Your task to perform on an android device: Open accessibility settings Image 0: 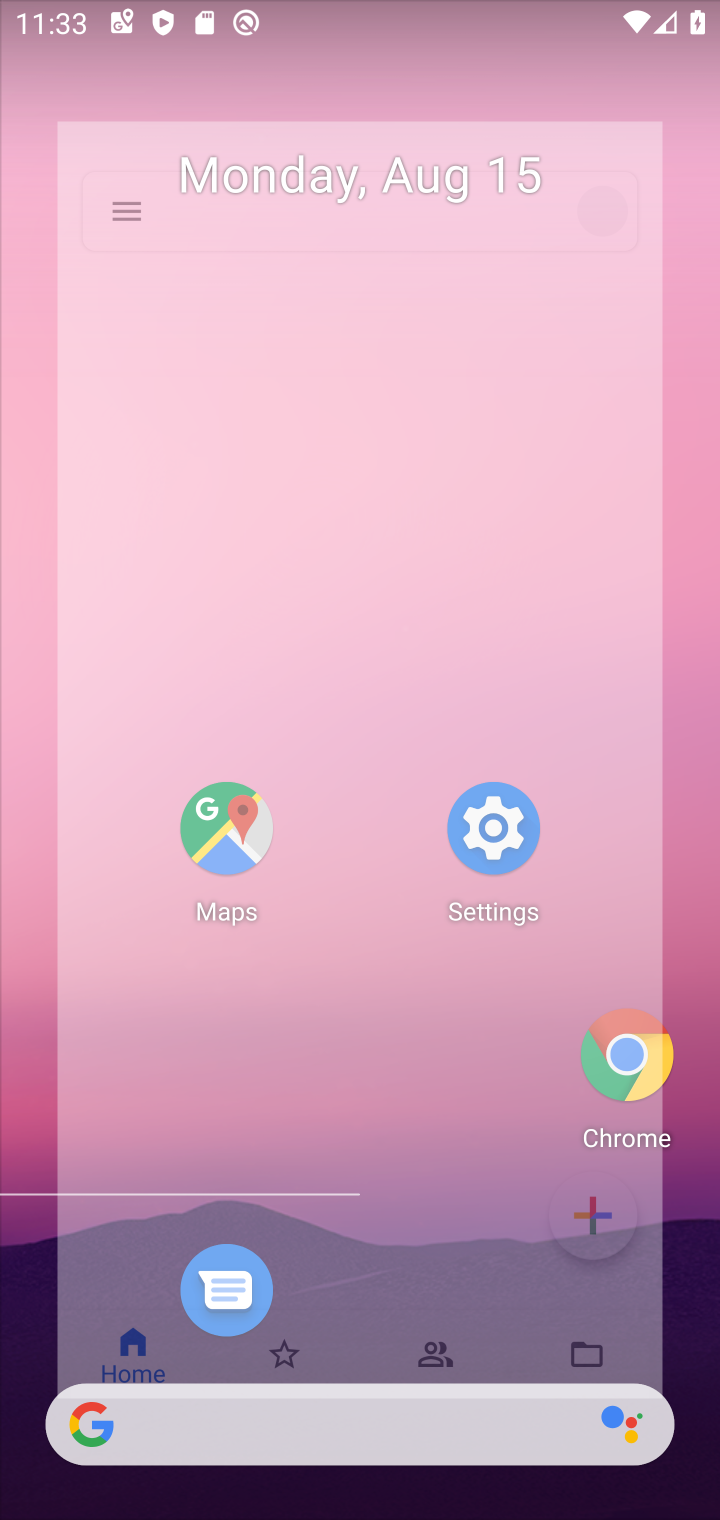
Step 0: press home button
Your task to perform on an android device: Open accessibility settings Image 1: 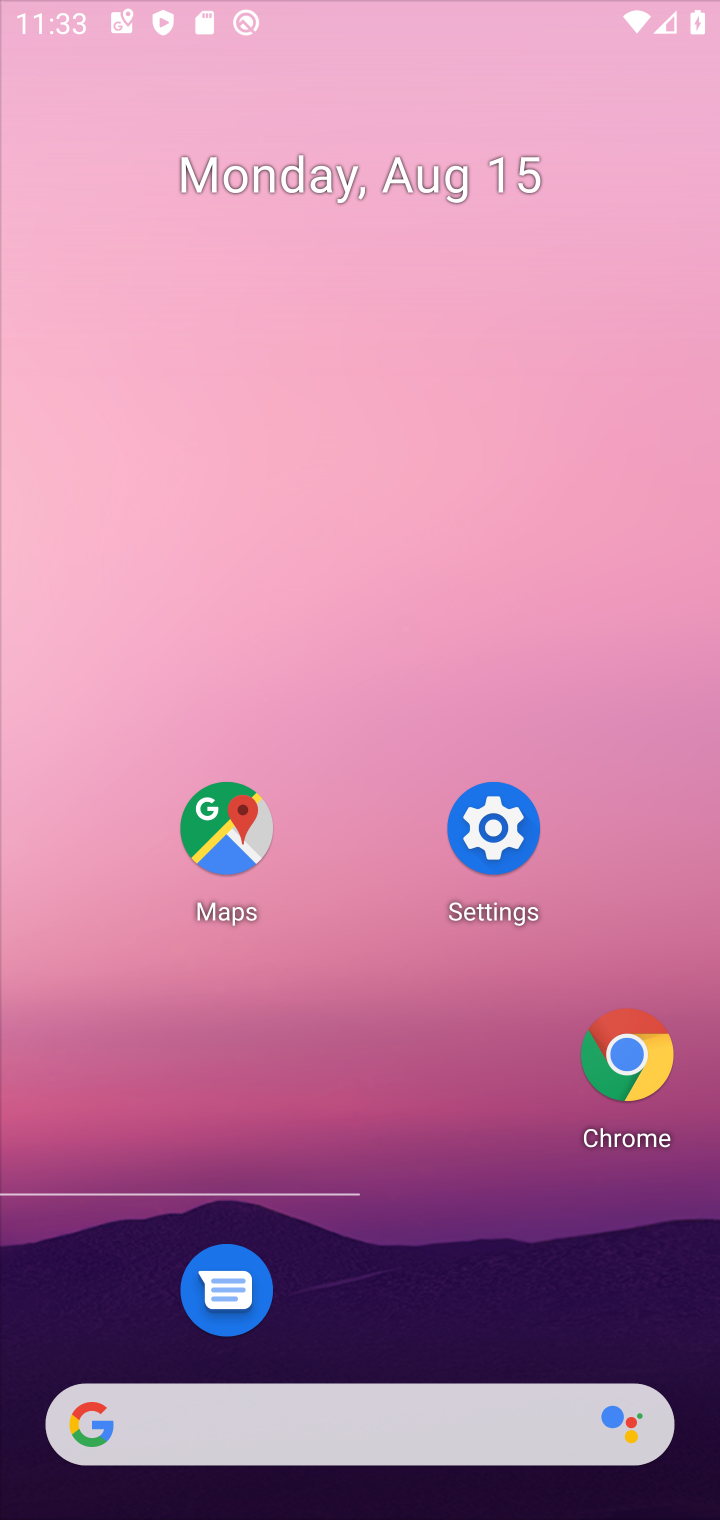
Step 1: press home button
Your task to perform on an android device: Open accessibility settings Image 2: 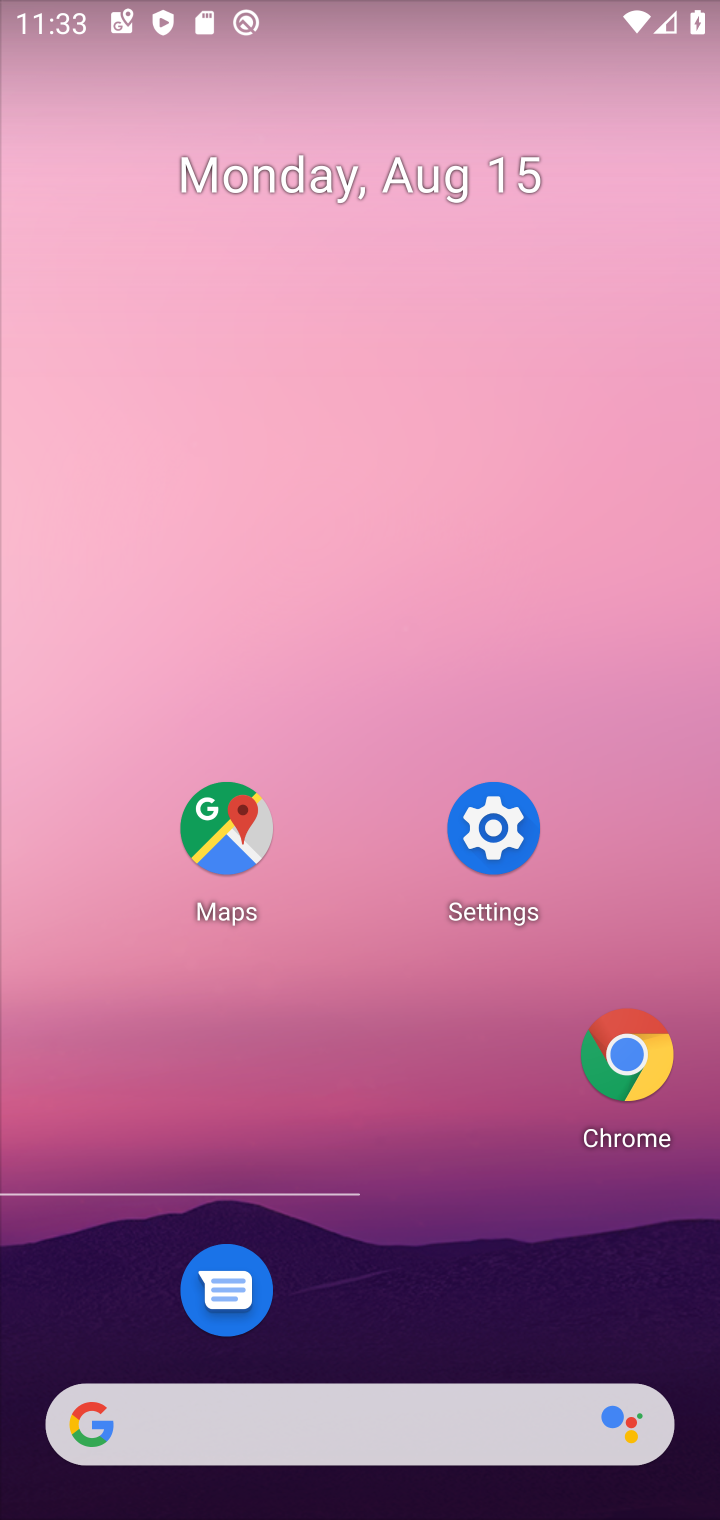
Step 2: click (494, 814)
Your task to perform on an android device: Open accessibility settings Image 3: 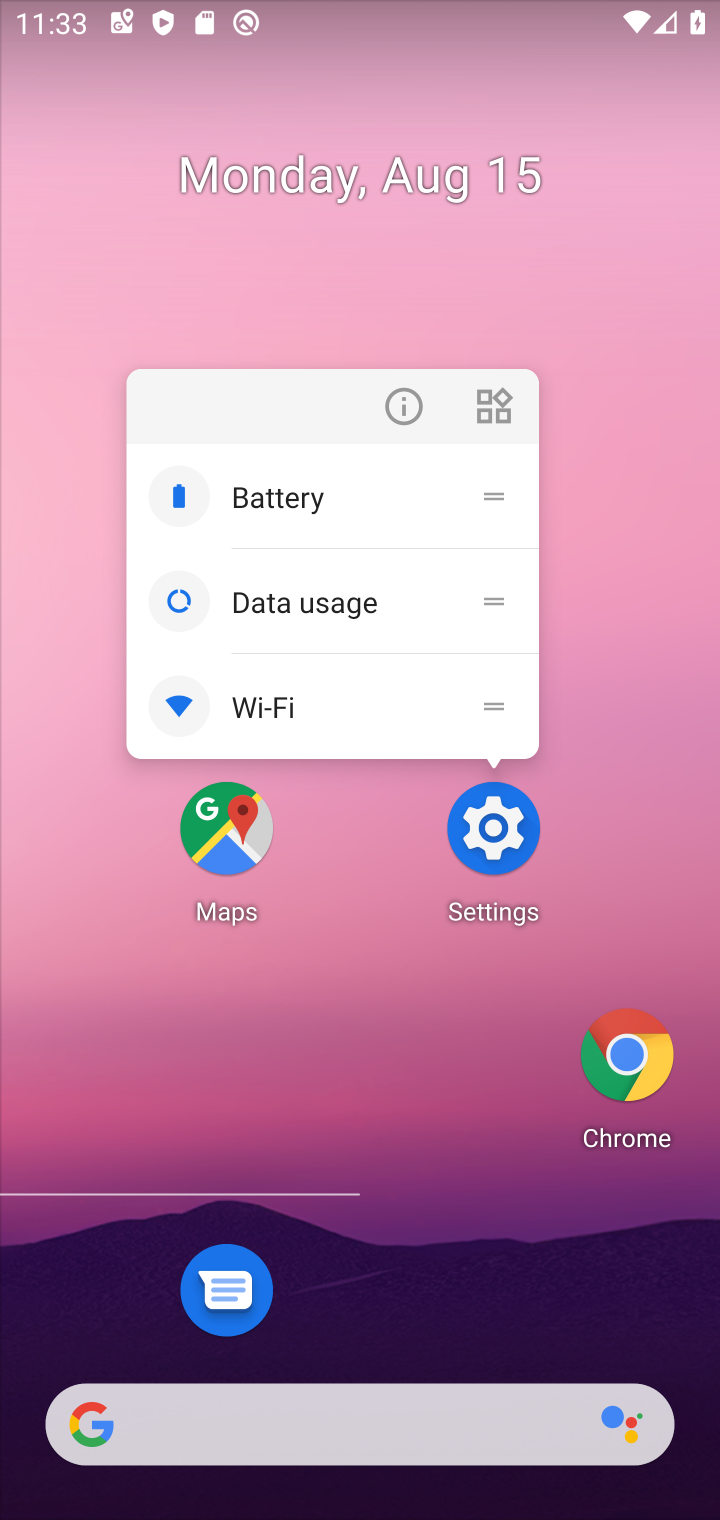
Step 3: click (494, 813)
Your task to perform on an android device: Open accessibility settings Image 4: 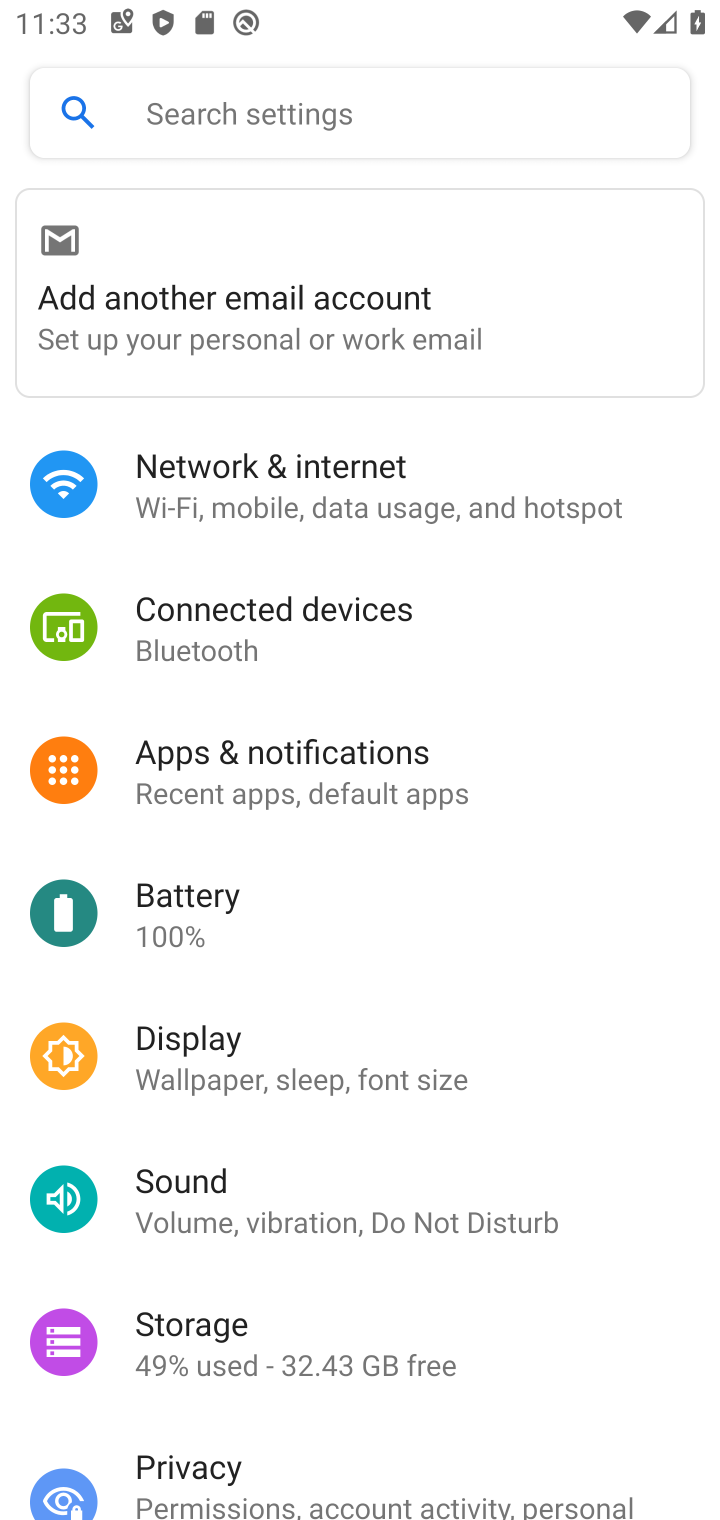
Step 4: drag from (496, 1354) to (616, 187)
Your task to perform on an android device: Open accessibility settings Image 5: 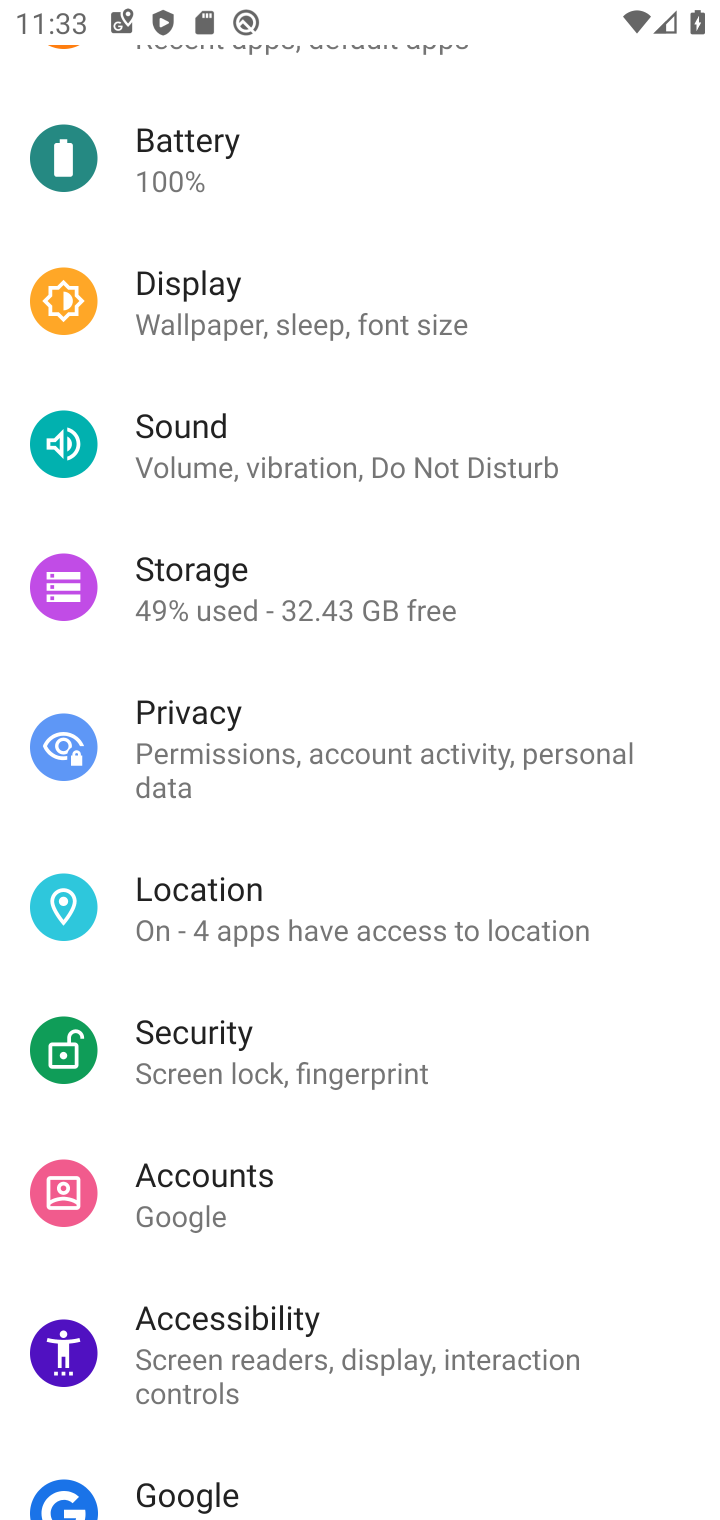
Step 5: click (263, 1325)
Your task to perform on an android device: Open accessibility settings Image 6: 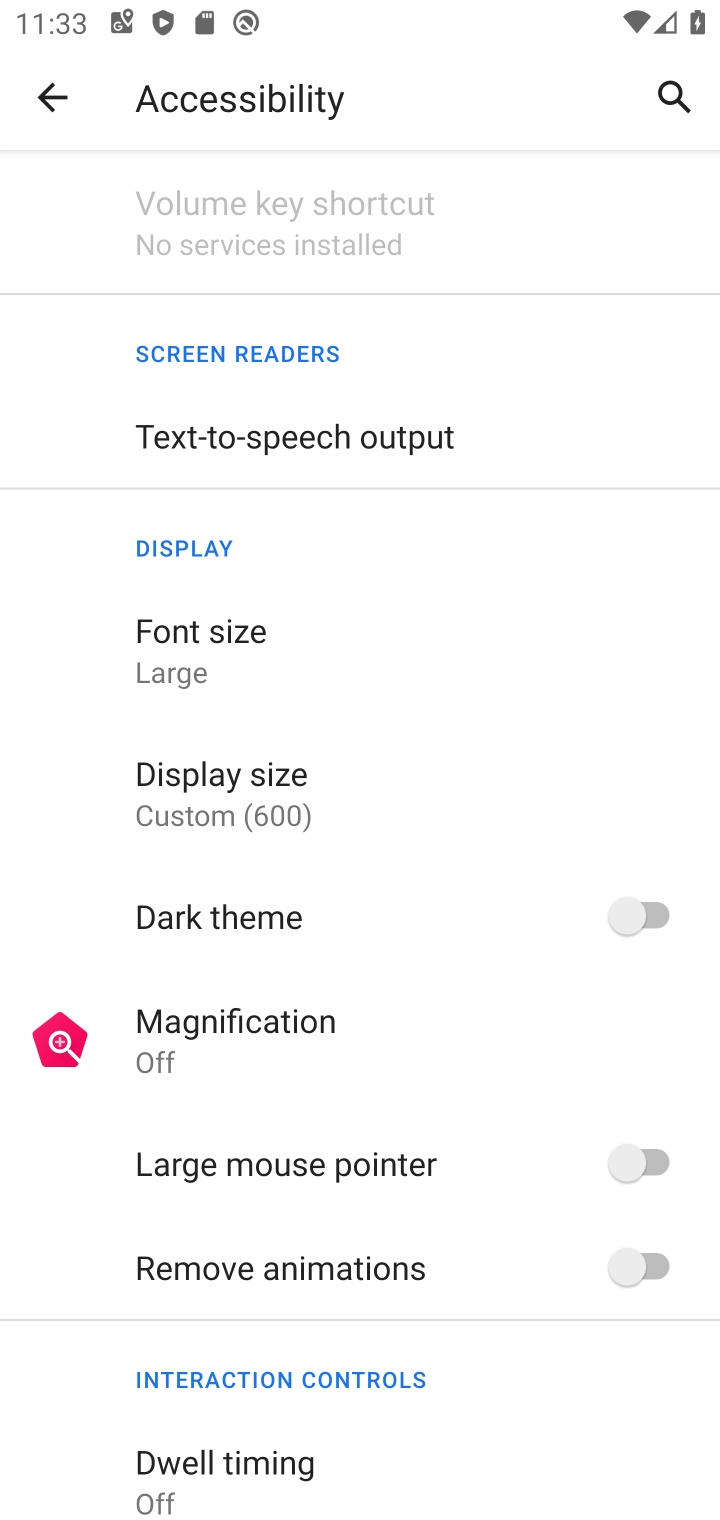
Step 6: task complete